Your task to perform on an android device: Turn on the flashlight Image 0: 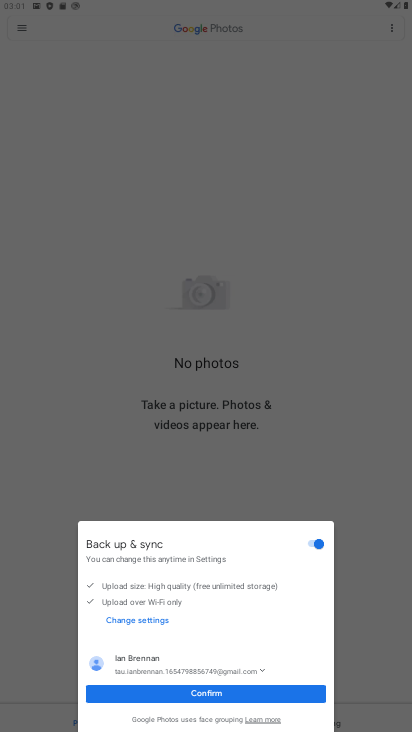
Step 0: press home button
Your task to perform on an android device: Turn on the flashlight Image 1: 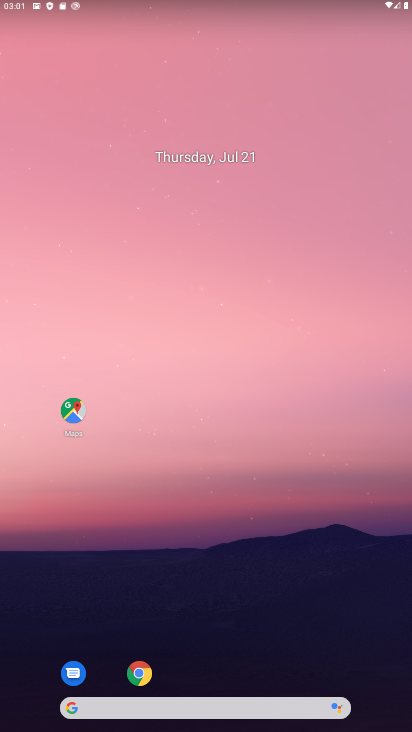
Step 1: drag from (223, 450) to (201, 74)
Your task to perform on an android device: Turn on the flashlight Image 2: 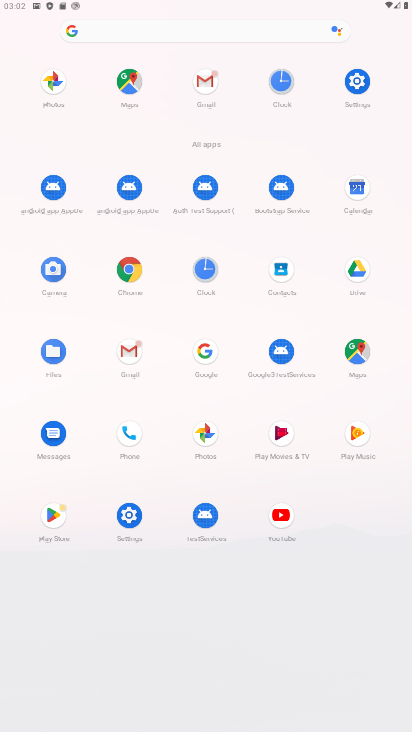
Step 2: click (346, 82)
Your task to perform on an android device: Turn on the flashlight Image 3: 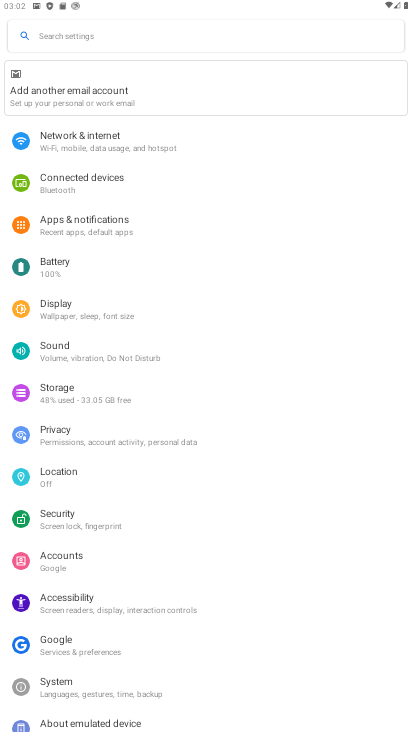
Step 3: click (69, 310)
Your task to perform on an android device: Turn on the flashlight Image 4: 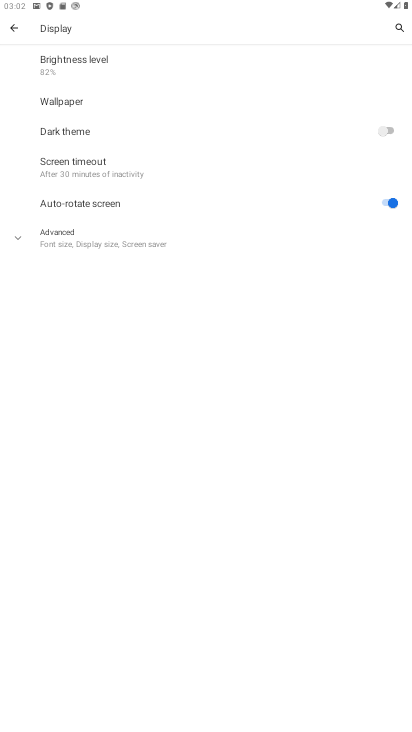
Step 4: task complete